Your task to perform on an android device: turn off javascript in the chrome app Image 0: 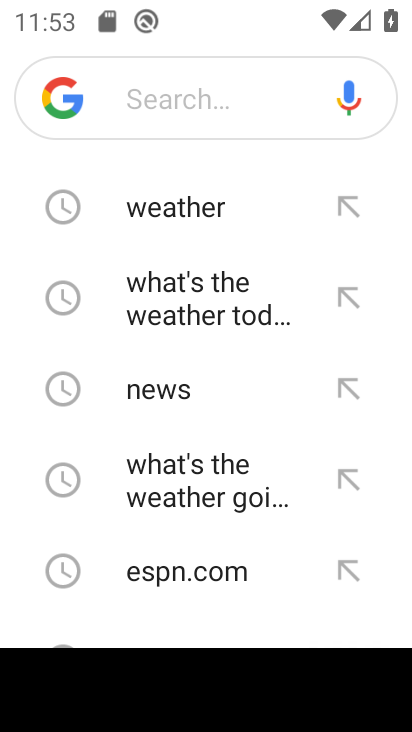
Step 0: press home button
Your task to perform on an android device: turn off javascript in the chrome app Image 1: 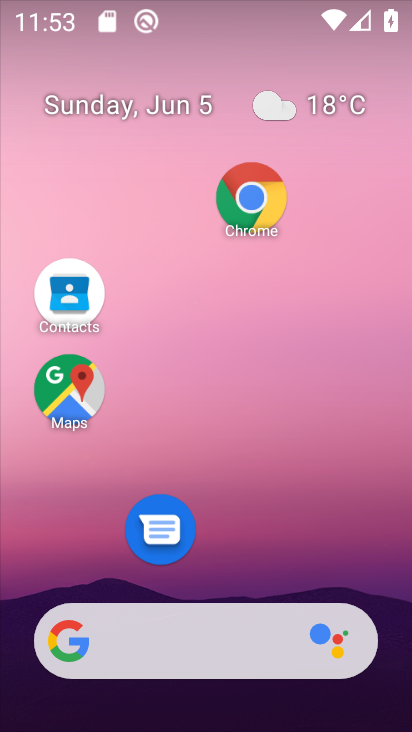
Step 1: drag from (255, 517) to (282, 13)
Your task to perform on an android device: turn off javascript in the chrome app Image 2: 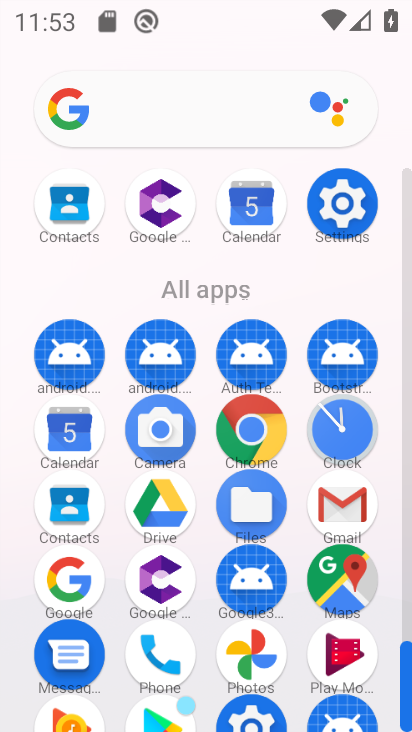
Step 2: click (248, 433)
Your task to perform on an android device: turn off javascript in the chrome app Image 3: 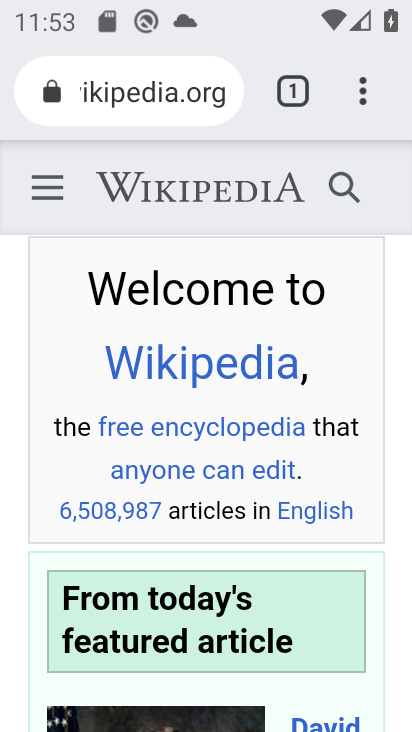
Step 3: click (368, 107)
Your task to perform on an android device: turn off javascript in the chrome app Image 4: 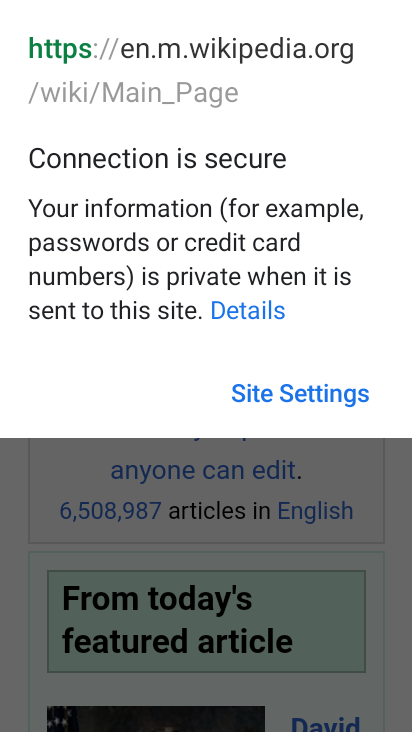
Step 4: click (334, 458)
Your task to perform on an android device: turn off javascript in the chrome app Image 5: 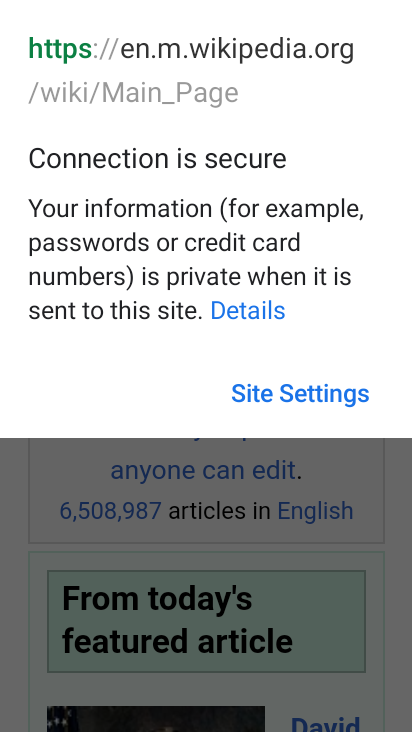
Step 5: click (289, 531)
Your task to perform on an android device: turn off javascript in the chrome app Image 6: 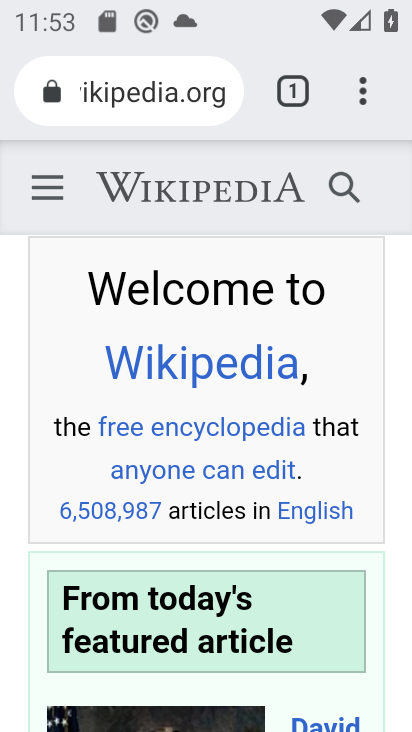
Step 6: click (358, 94)
Your task to perform on an android device: turn off javascript in the chrome app Image 7: 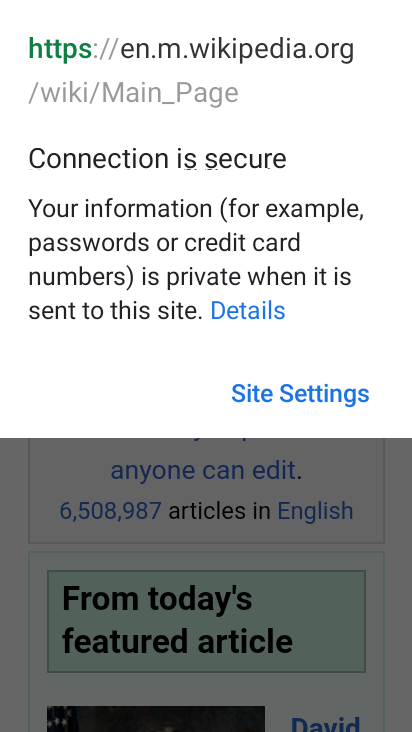
Step 7: click (291, 553)
Your task to perform on an android device: turn off javascript in the chrome app Image 8: 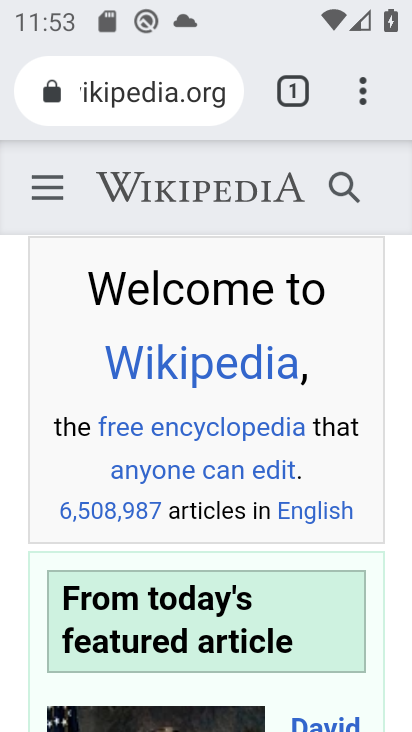
Step 8: click (366, 92)
Your task to perform on an android device: turn off javascript in the chrome app Image 9: 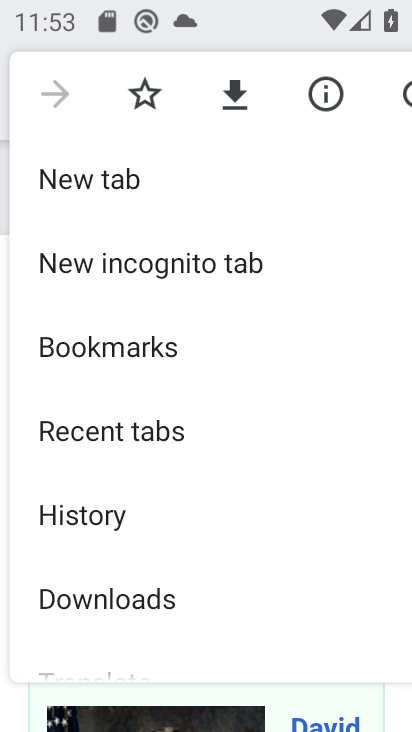
Step 9: drag from (139, 578) to (90, 296)
Your task to perform on an android device: turn off javascript in the chrome app Image 10: 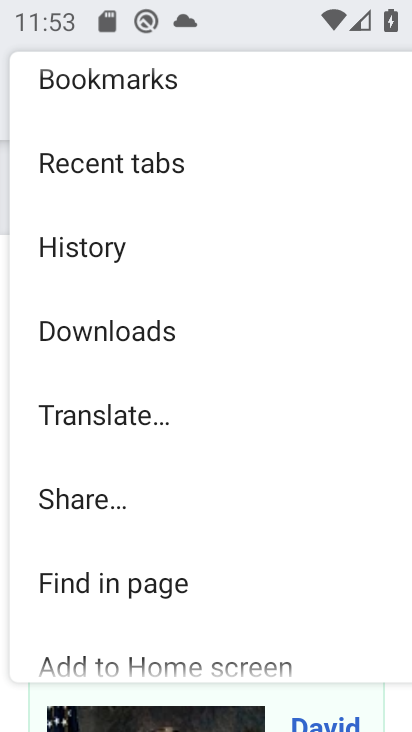
Step 10: drag from (172, 588) to (180, 289)
Your task to perform on an android device: turn off javascript in the chrome app Image 11: 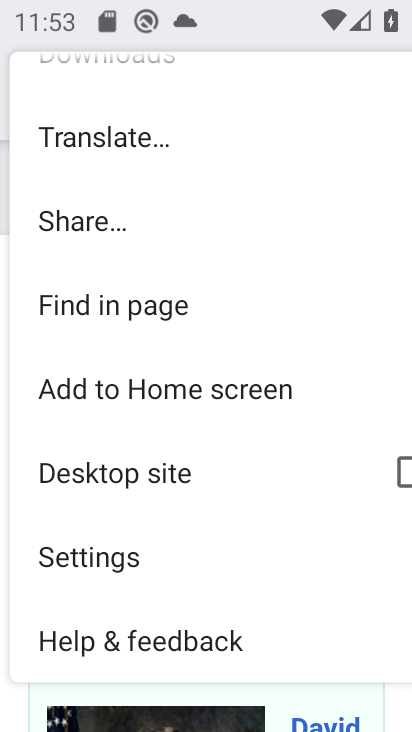
Step 11: click (136, 564)
Your task to perform on an android device: turn off javascript in the chrome app Image 12: 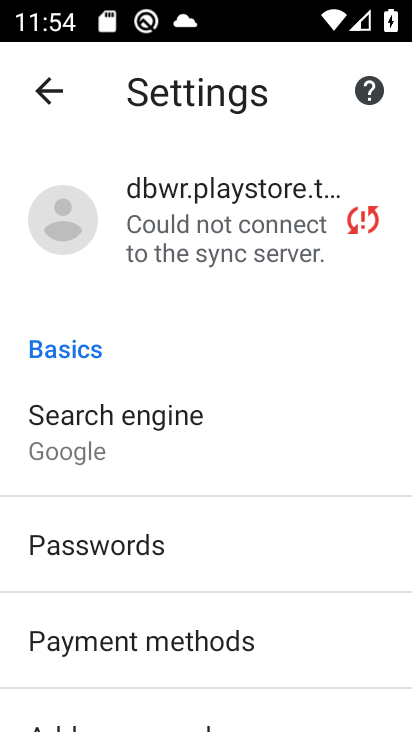
Step 12: drag from (128, 671) to (147, 274)
Your task to perform on an android device: turn off javascript in the chrome app Image 13: 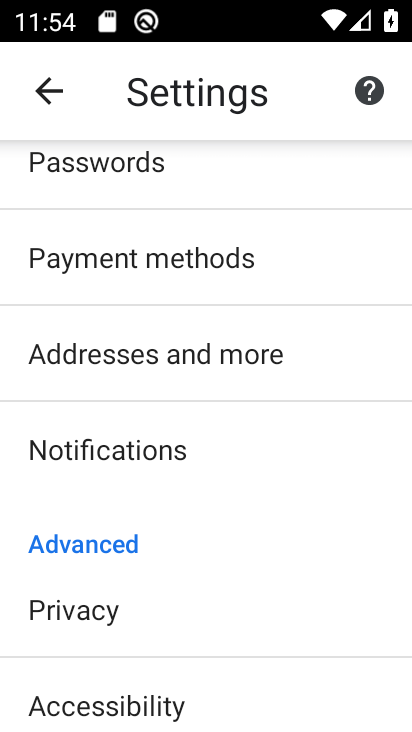
Step 13: drag from (152, 684) to (147, 428)
Your task to perform on an android device: turn off javascript in the chrome app Image 14: 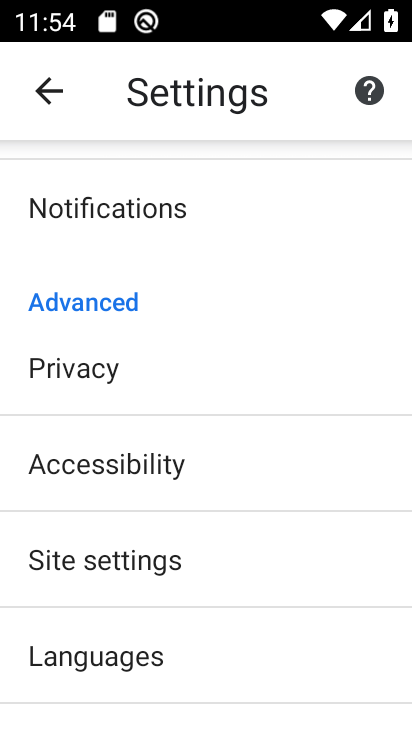
Step 14: click (139, 561)
Your task to perform on an android device: turn off javascript in the chrome app Image 15: 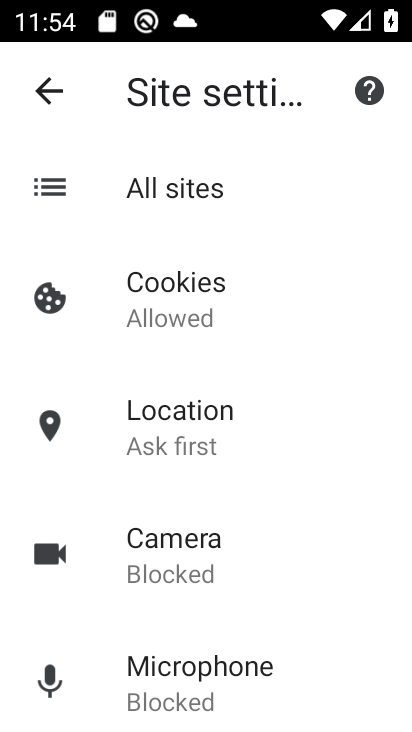
Step 15: drag from (181, 636) to (144, 306)
Your task to perform on an android device: turn off javascript in the chrome app Image 16: 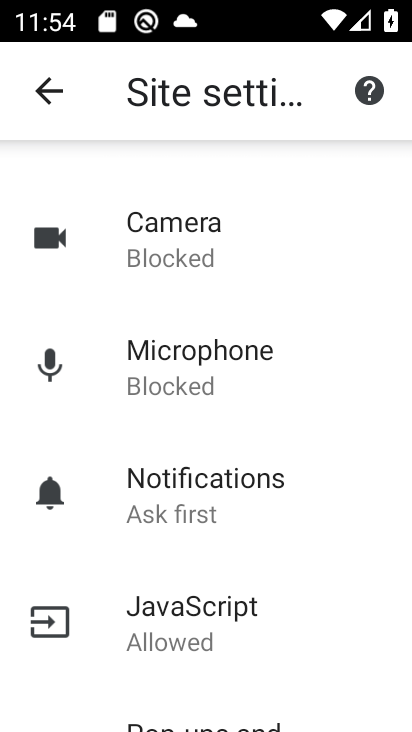
Step 16: click (192, 628)
Your task to perform on an android device: turn off javascript in the chrome app Image 17: 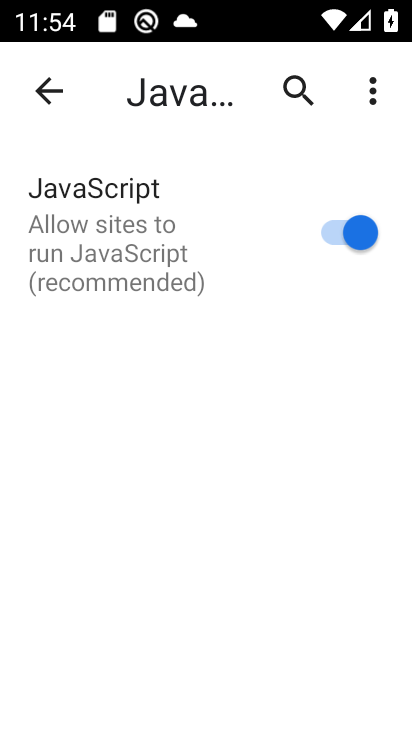
Step 17: click (353, 218)
Your task to perform on an android device: turn off javascript in the chrome app Image 18: 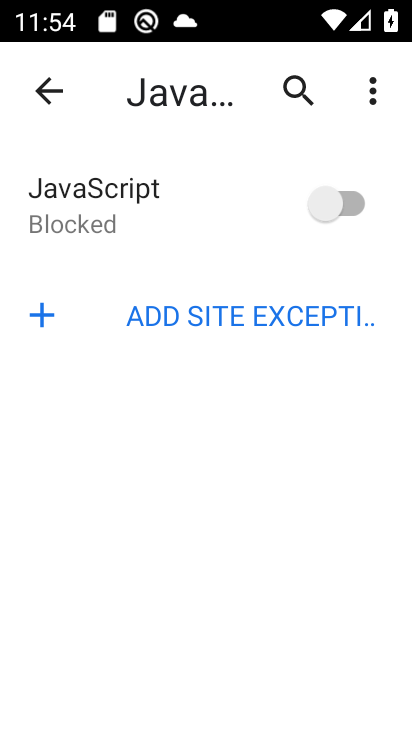
Step 18: task complete